Your task to perform on an android device: toggle notifications settings in the gmail app Image 0: 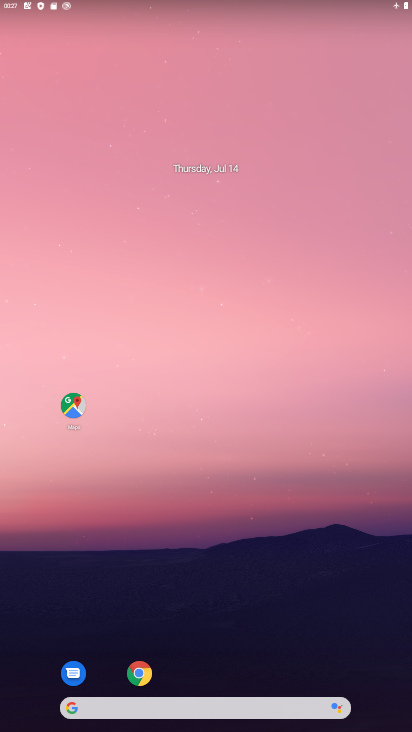
Step 0: drag from (224, 623) to (224, 244)
Your task to perform on an android device: toggle notifications settings in the gmail app Image 1: 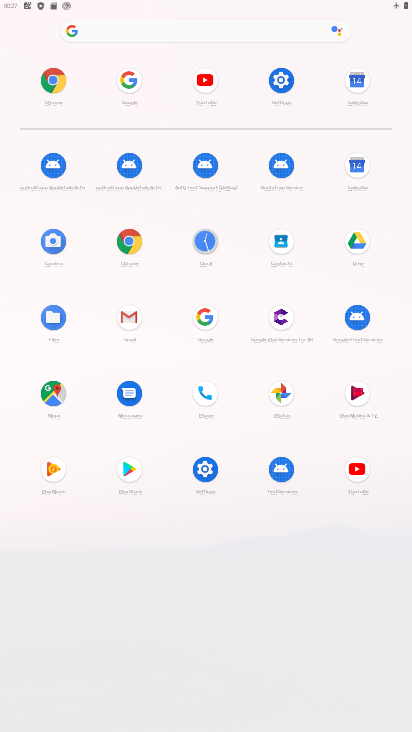
Step 1: click (122, 324)
Your task to perform on an android device: toggle notifications settings in the gmail app Image 2: 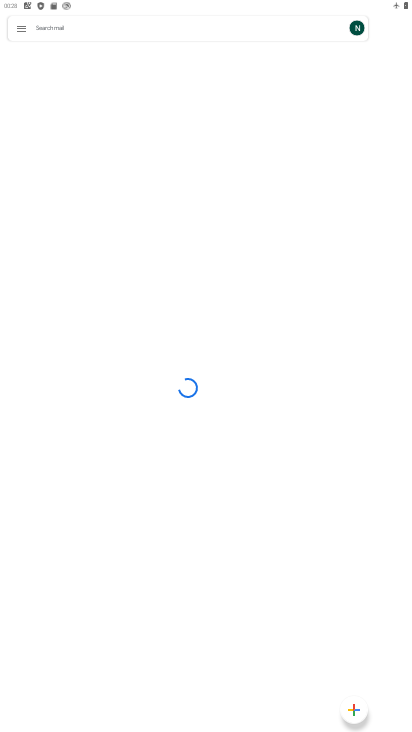
Step 2: click (21, 29)
Your task to perform on an android device: toggle notifications settings in the gmail app Image 3: 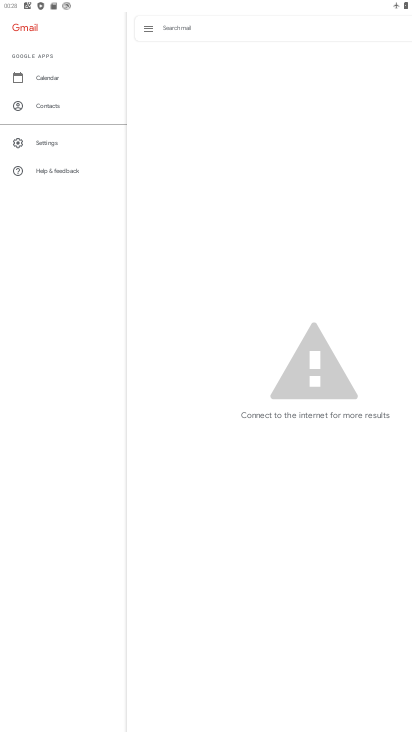
Step 3: click (59, 145)
Your task to perform on an android device: toggle notifications settings in the gmail app Image 4: 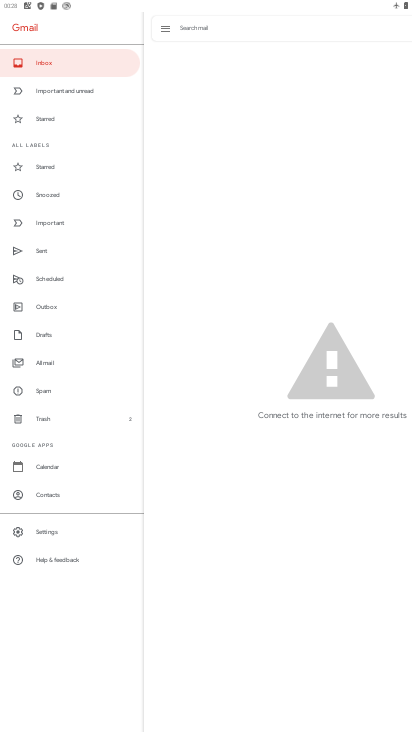
Step 4: click (48, 528)
Your task to perform on an android device: toggle notifications settings in the gmail app Image 5: 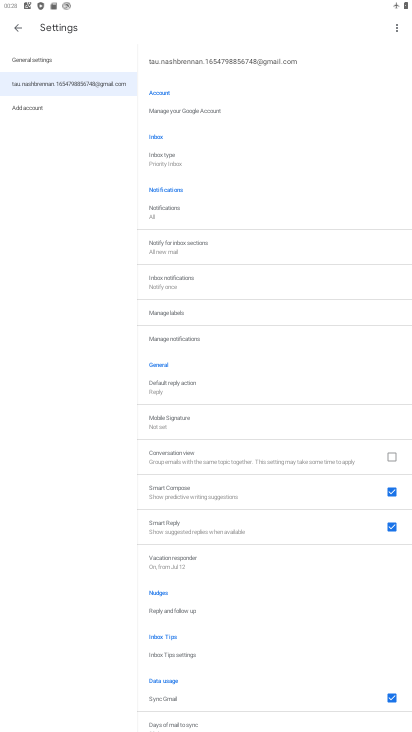
Step 5: click (209, 340)
Your task to perform on an android device: toggle notifications settings in the gmail app Image 6: 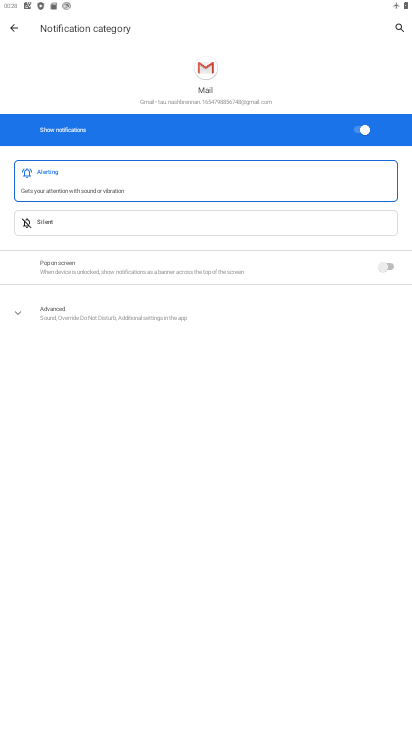
Step 6: click (353, 121)
Your task to perform on an android device: toggle notifications settings in the gmail app Image 7: 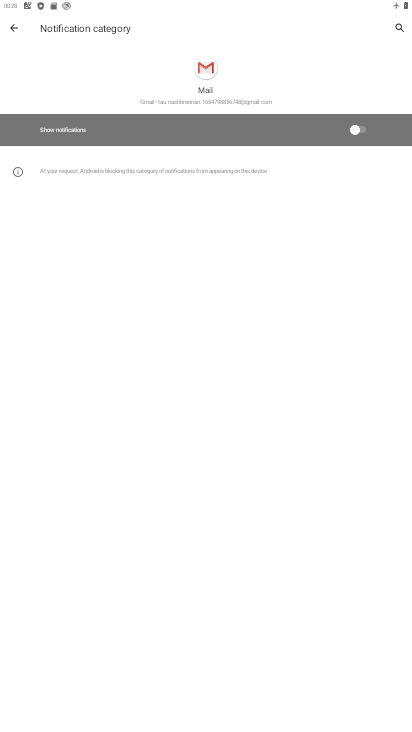
Step 7: task complete